Your task to perform on an android device: When is my next appointment? Image 0: 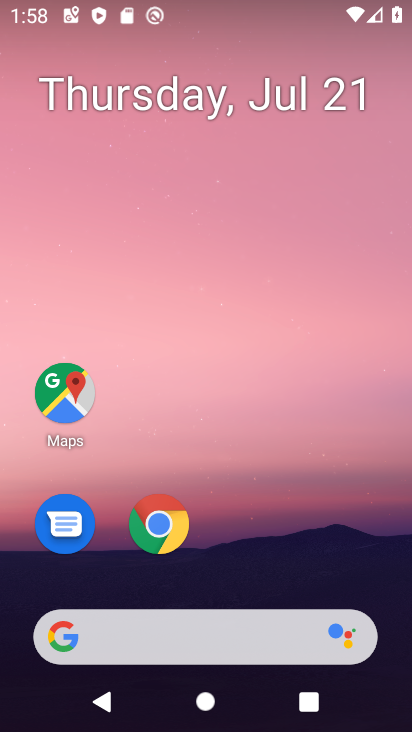
Step 0: drag from (259, 549) to (219, 38)
Your task to perform on an android device: When is my next appointment? Image 1: 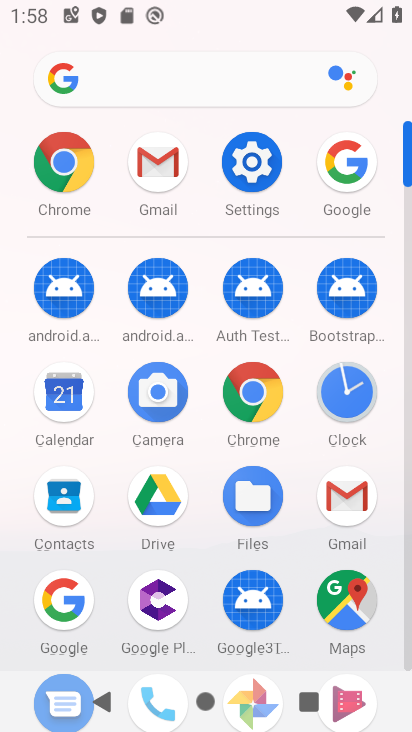
Step 1: click (64, 388)
Your task to perform on an android device: When is my next appointment? Image 2: 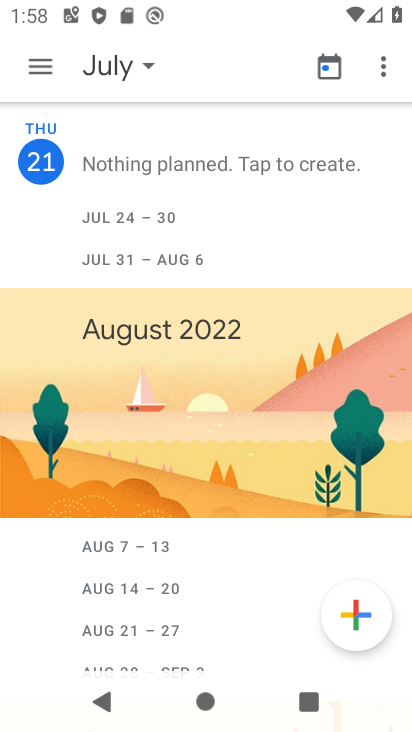
Step 2: task complete